Your task to perform on an android device: When is my next meeting? Image 0: 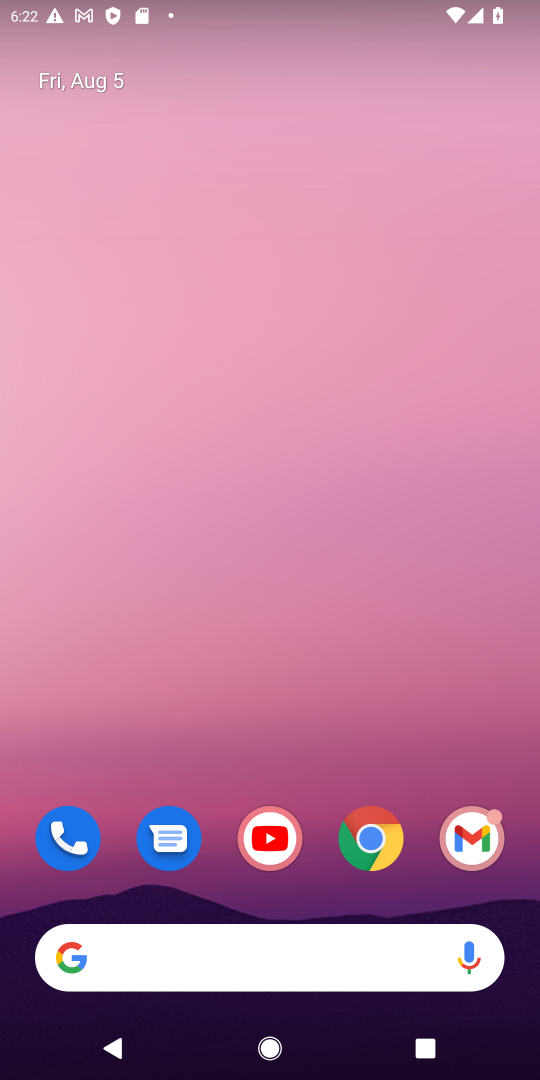
Step 0: press home button
Your task to perform on an android device: When is my next meeting? Image 1: 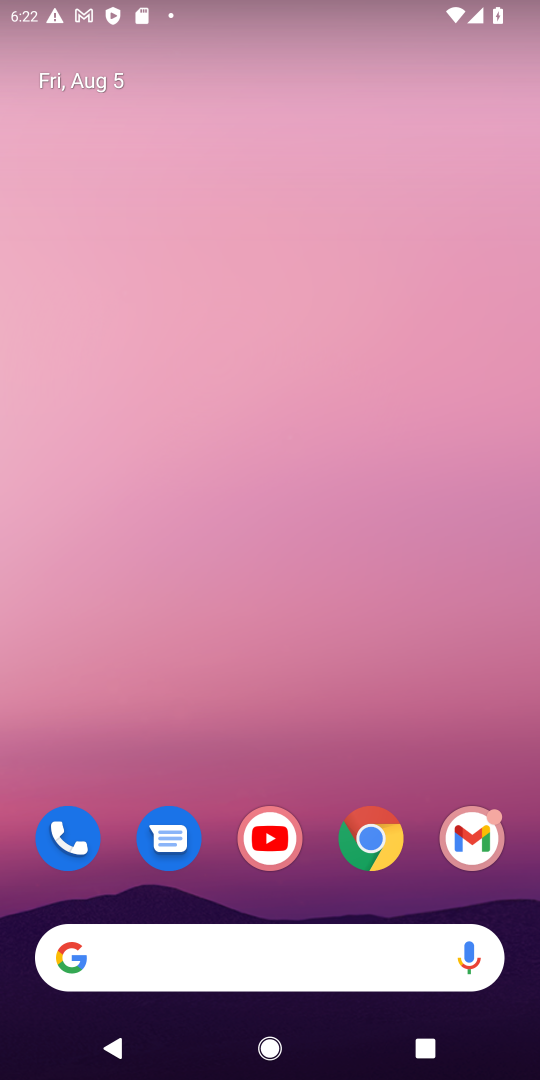
Step 1: drag from (275, 737) to (378, 152)
Your task to perform on an android device: When is my next meeting? Image 2: 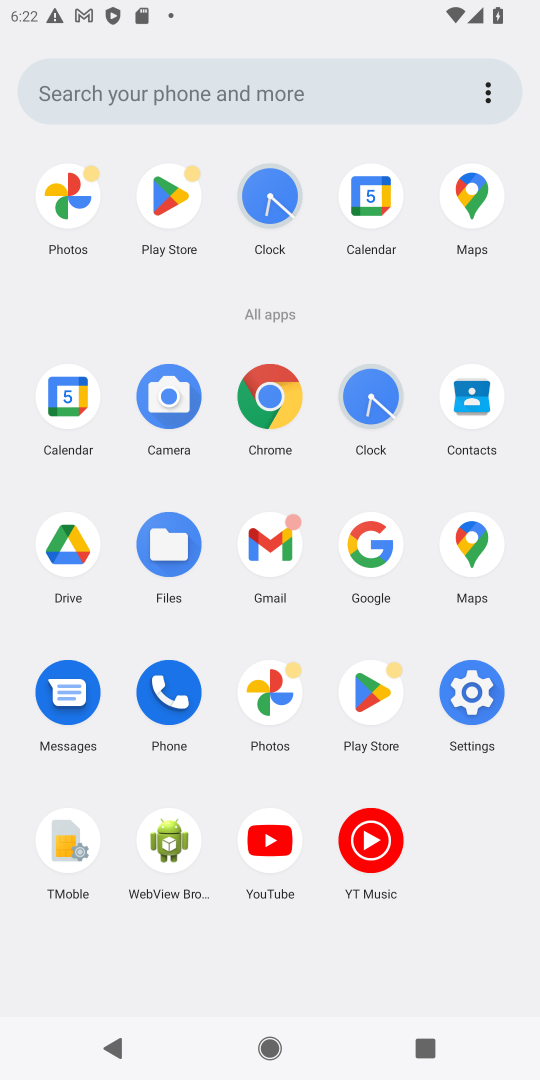
Step 2: click (76, 389)
Your task to perform on an android device: When is my next meeting? Image 3: 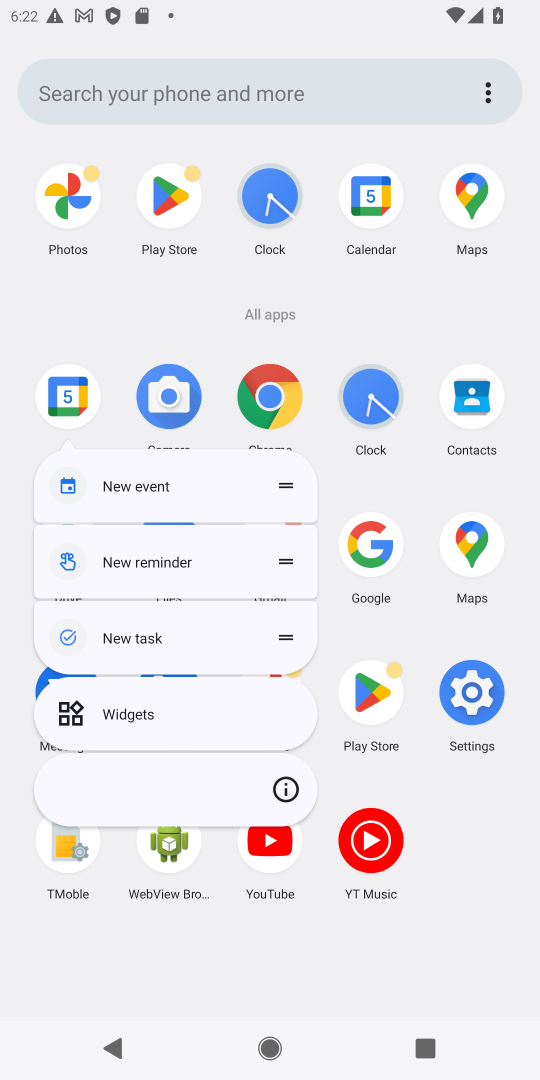
Step 3: click (76, 389)
Your task to perform on an android device: When is my next meeting? Image 4: 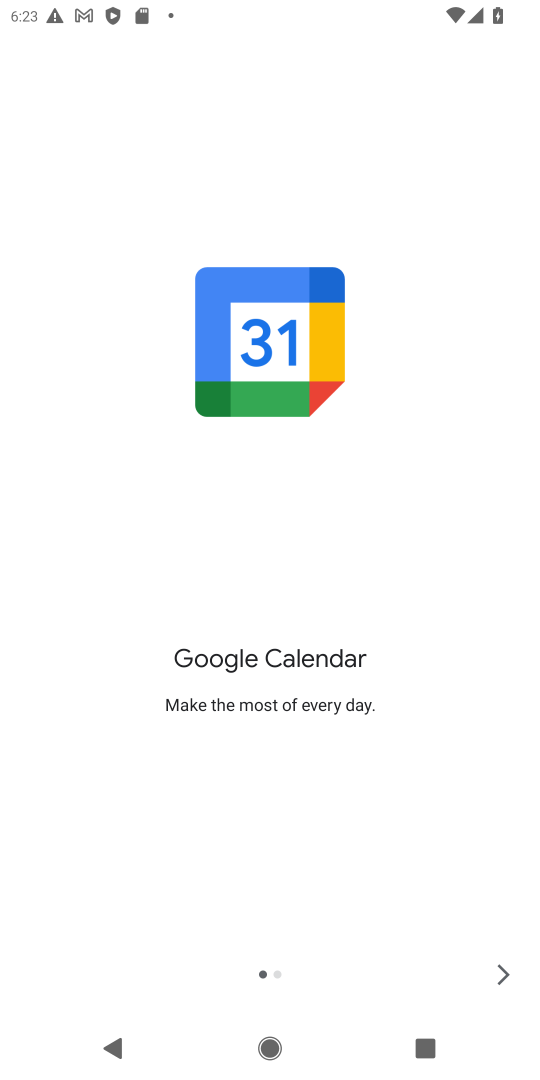
Step 4: click (504, 968)
Your task to perform on an android device: When is my next meeting? Image 5: 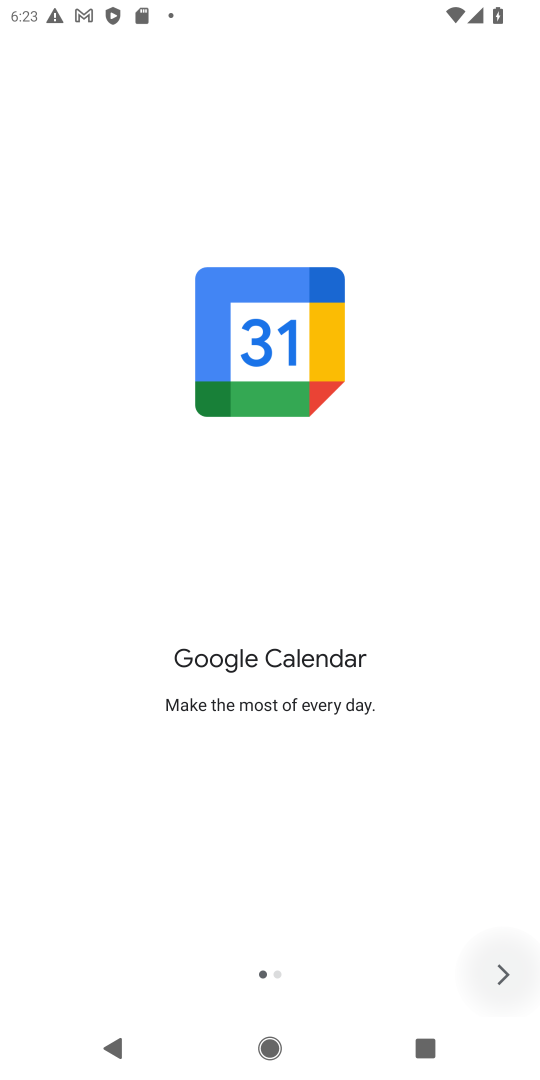
Step 5: click (504, 968)
Your task to perform on an android device: When is my next meeting? Image 6: 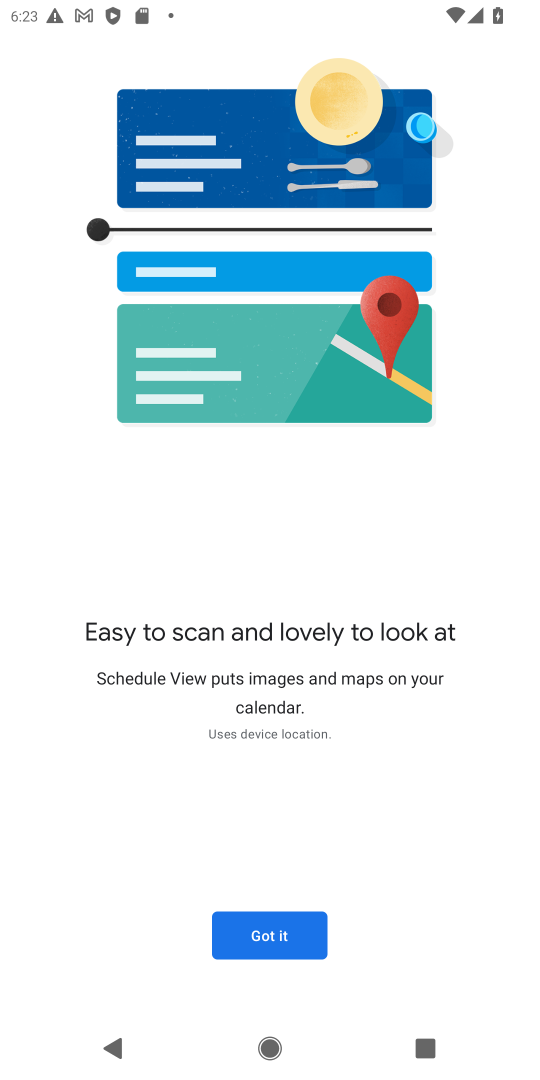
Step 6: click (264, 942)
Your task to perform on an android device: When is my next meeting? Image 7: 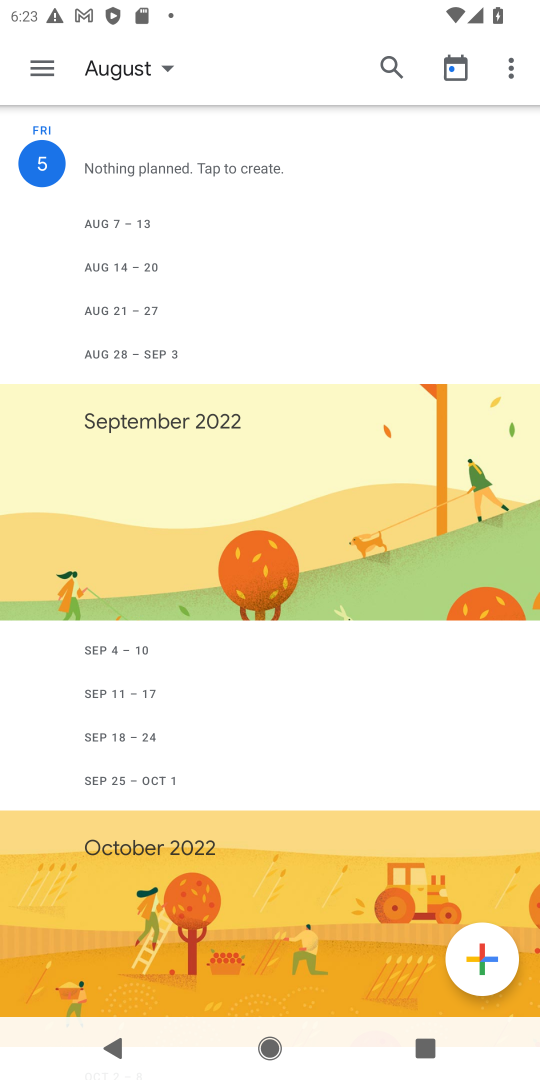
Step 7: click (45, 65)
Your task to perform on an android device: When is my next meeting? Image 8: 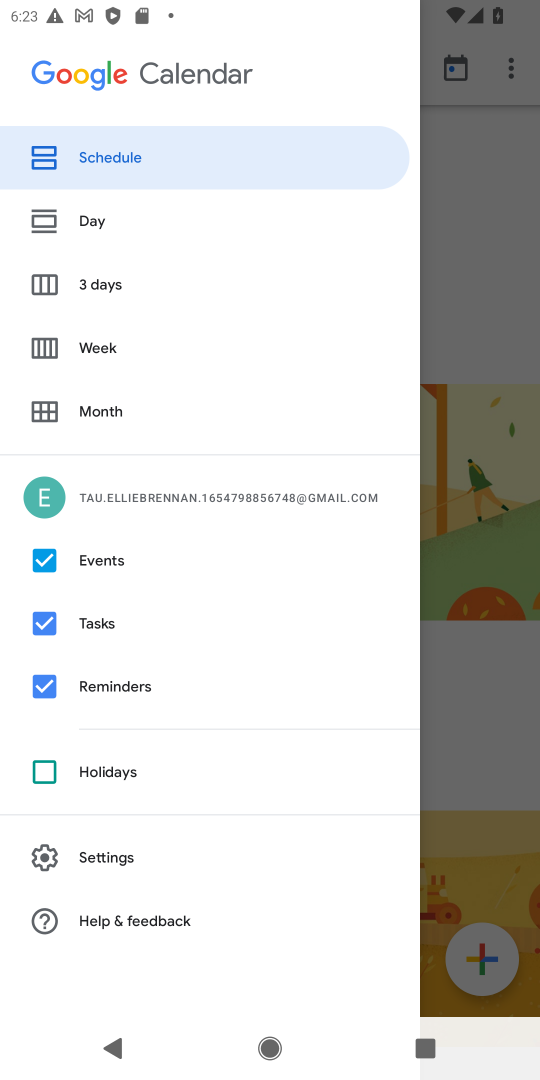
Step 8: click (115, 156)
Your task to perform on an android device: When is my next meeting? Image 9: 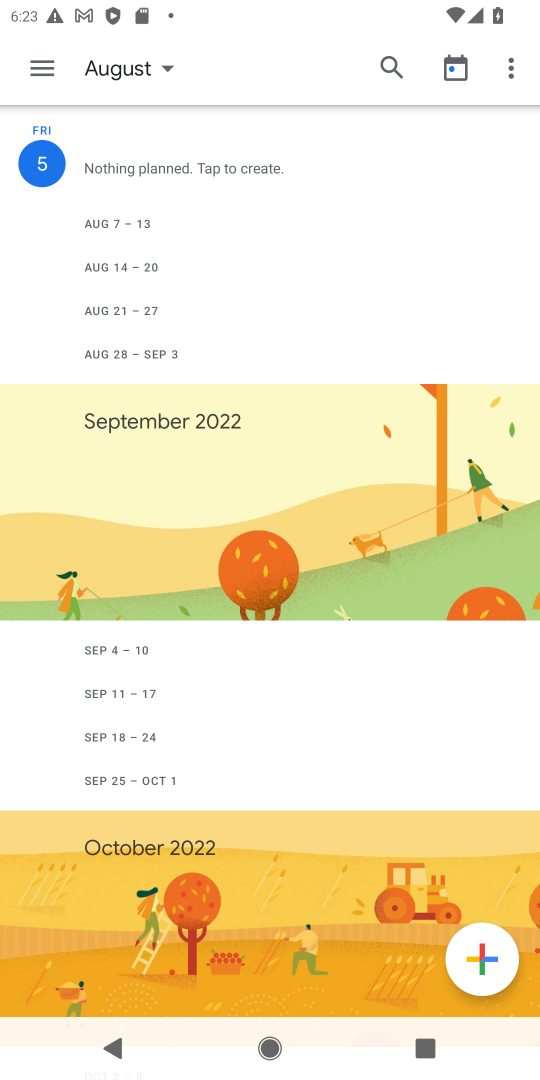
Step 9: task complete